Your task to perform on an android device: turn on data saver in the chrome app Image 0: 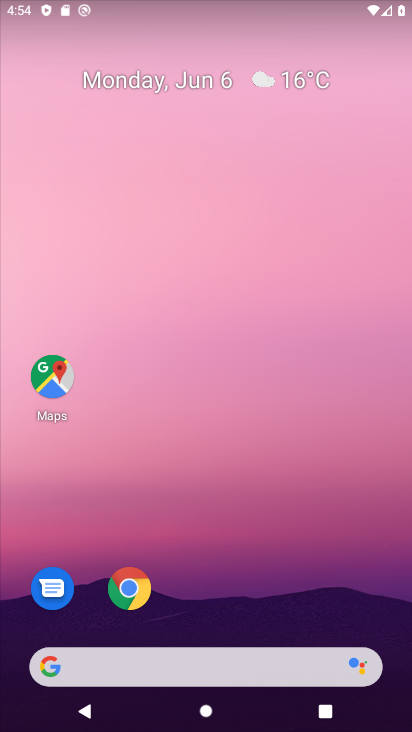
Step 0: click (143, 596)
Your task to perform on an android device: turn on data saver in the chrome app Image 1: 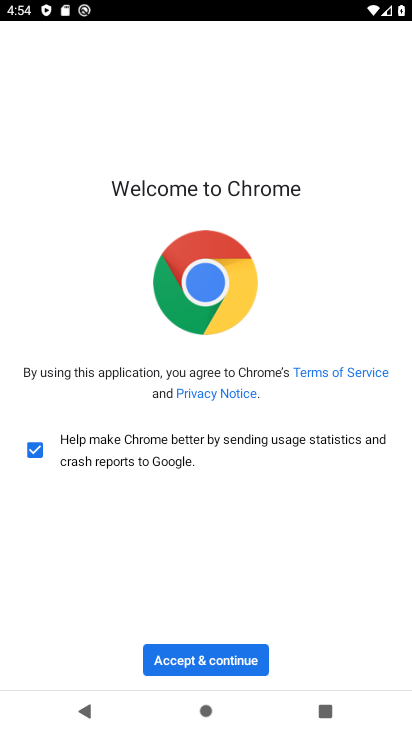
Step 1: click (228, 660)
Your task to perform on an android device: turn on data saver in the chrome app Image 2: 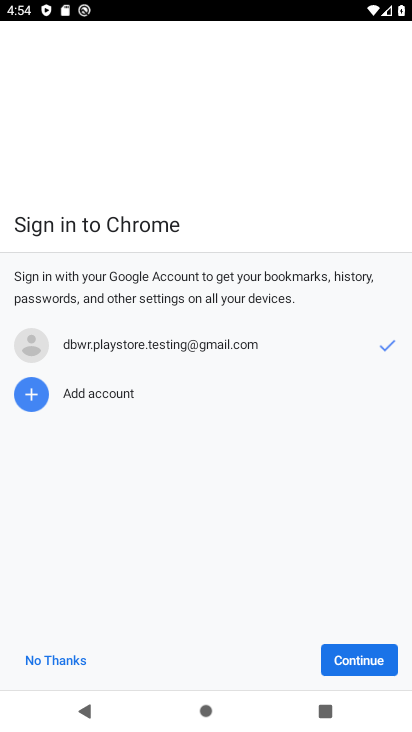
Step 2: click (338, 661)
Your task to perform on an android device: turn on data saver in the chrome app Image 3: 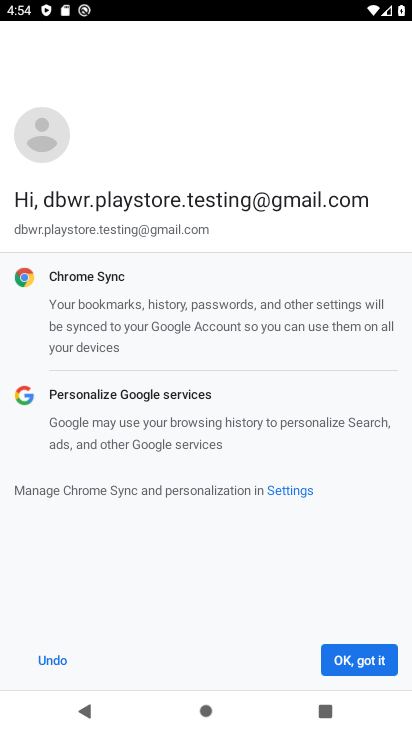
Step 3: click (338, 661)
Your task to perform on an android device: turn on data saver in the chrome app Image 4: 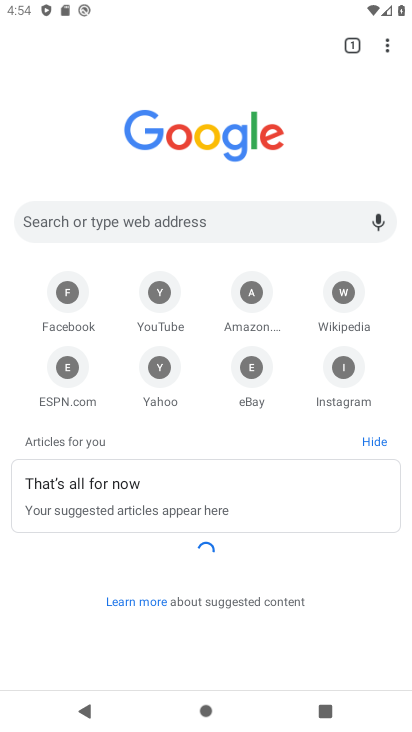
Step 4: click (390, 41)
Your task to perform on an android device: turn on data saver in the chrome app Image 5: 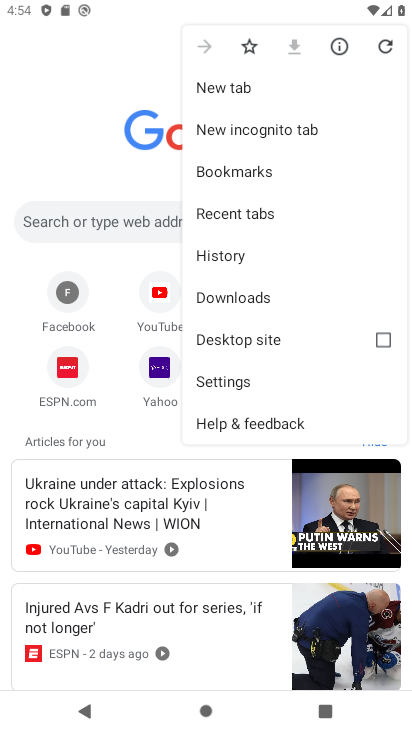
Step 5: click (265, 384)
Your task to perform on an android device: turn on data saver in the chrome app Image 6: 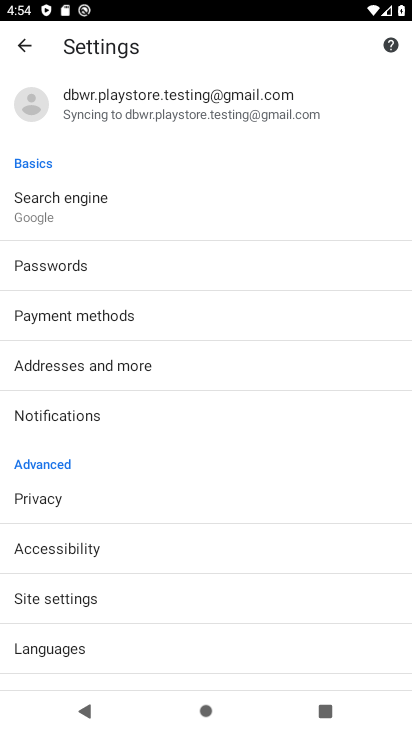
Step 6: drag from (150, 655) to (119, 374)
Your task to perform on an android device: turn on data saver in the chrome app Image 7: 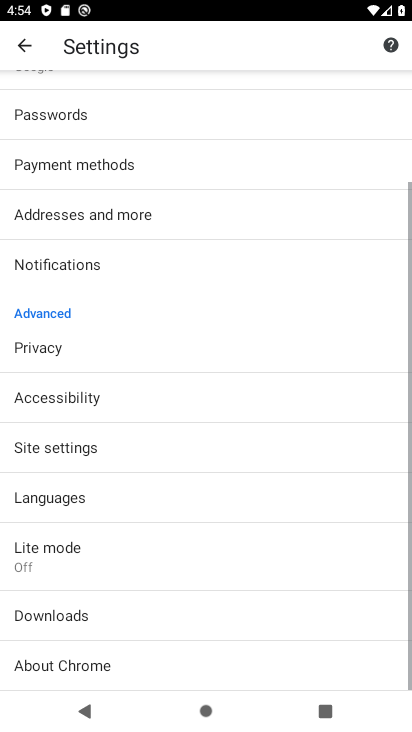
Step 7: click (120, 542)
Your task to perform on an android device: turn on data saver in the chrome app Image 8: 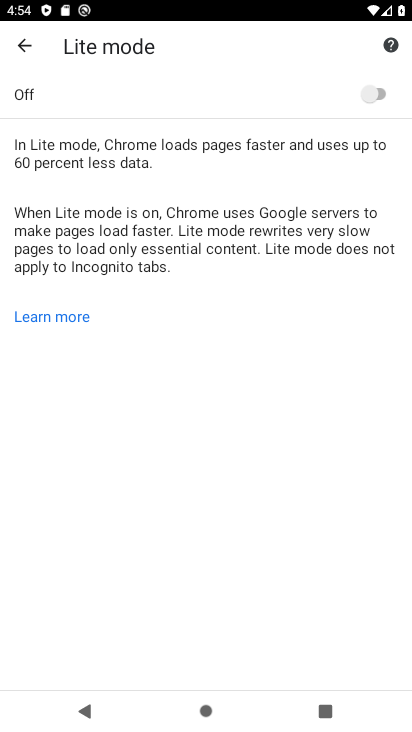
Step 8: click (385, 101)
Your task to perform on an android device: turn on data saver in the chrome app Image 9: 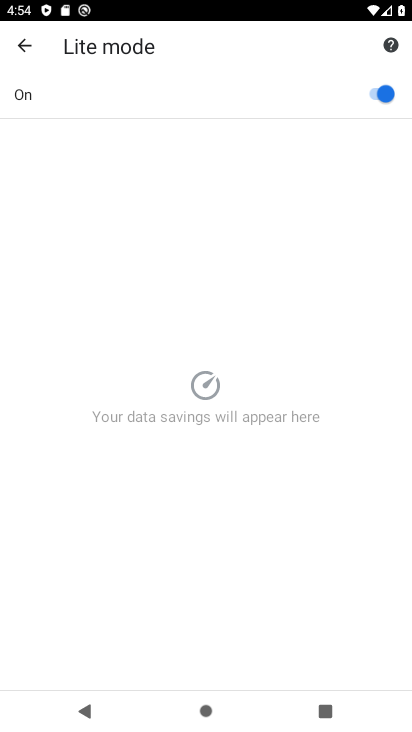
Step 9: task complete